Your task to perform on an android device: Open Wikipedia Image 0: 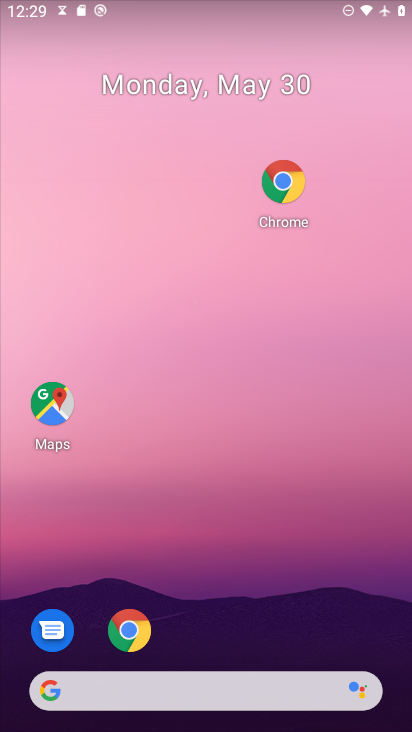
Step 0: drag from (275, 674) to (220, 288)
Your task to perform on an android device: Open Wikipedia Image 1: 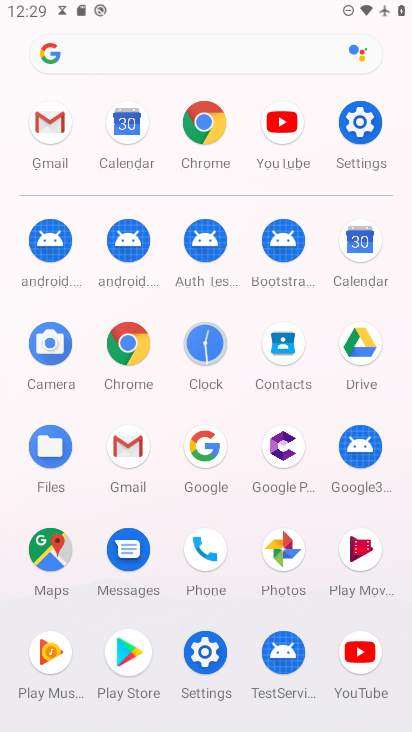
Step 1: click (203, 109)
Your task to perform on an android device: Open Wikipedia Image 2: 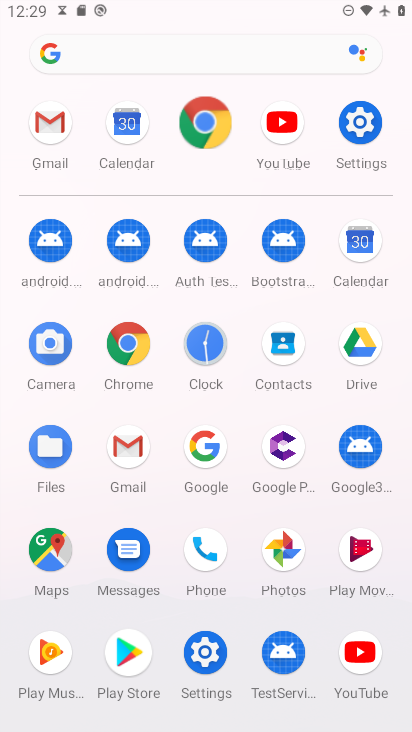
Step 2: click (204, 114)
Your task to perform on an android device: Open Wikipedia Image 3: 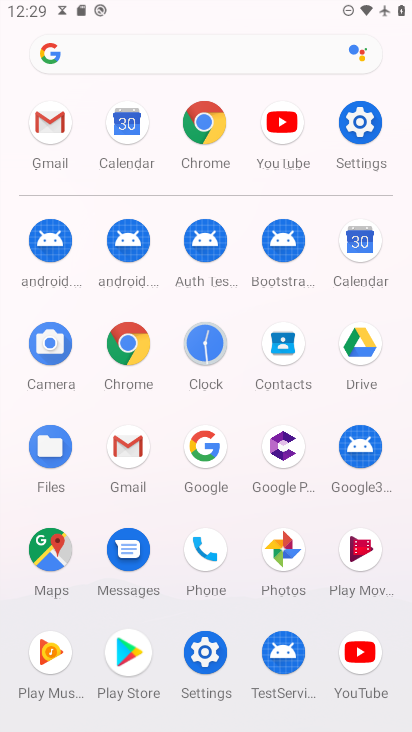
Step 3: click (205, 114)
Your task to perform on an android device: Open Wikipedia Image 4: 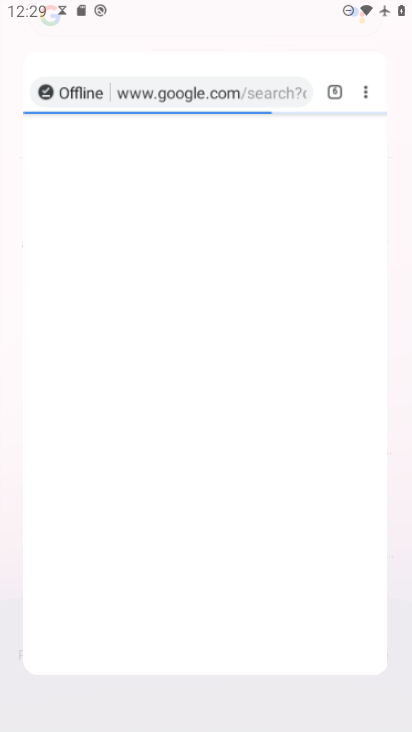
Step 4: click (205, 114)
Your task to perform on an android device: Open Wikipedia Image 5: 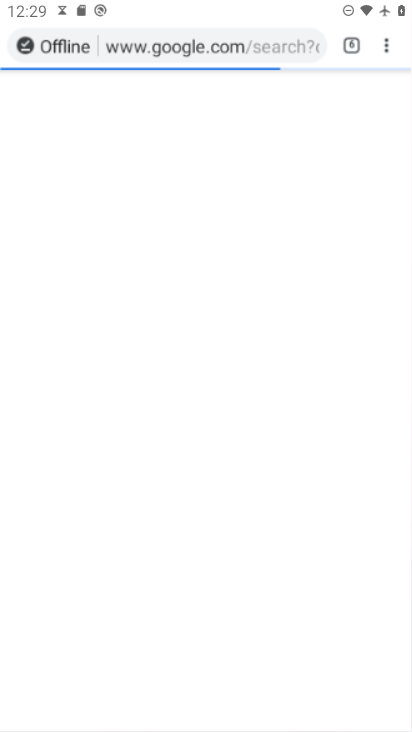
Step 5: click (205, 114)
Your task to perform on an android device: Open Wikipedia Image 6: 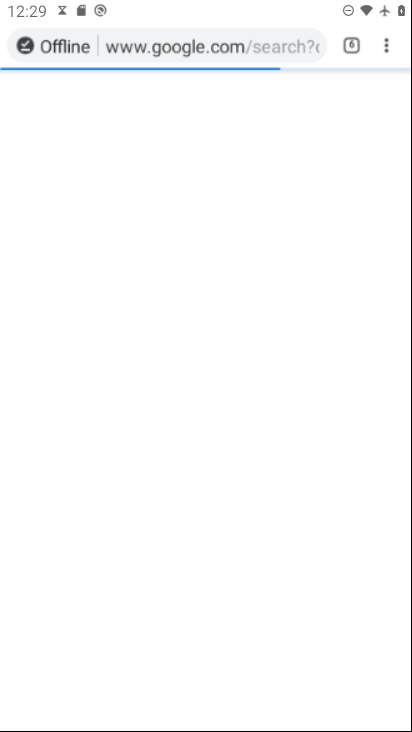
Step 6: click (206, 114)
Your task to perform on an android device: Open Wikipedia Image 7: 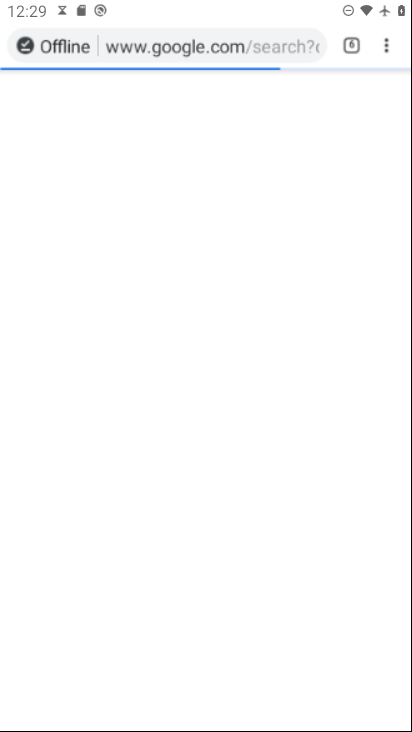
Step 7: drag from (381, 45) to (239, 96)
Your task to perform on an android device: Open Wikipedia Image 8: 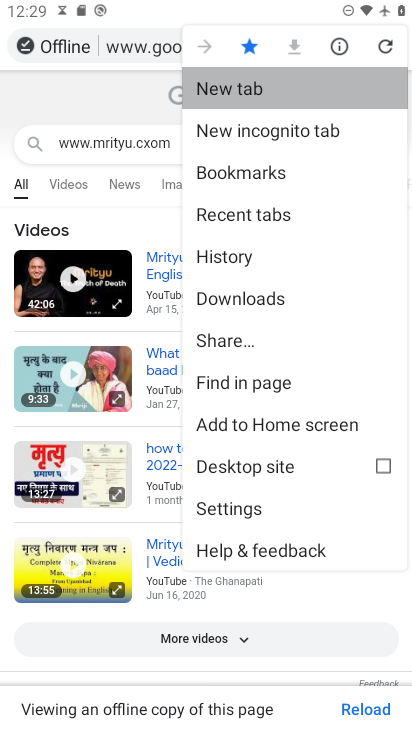
Step 8: click (241, 96)
Your task to perform on an android device: Open Wikipedia Image 9: 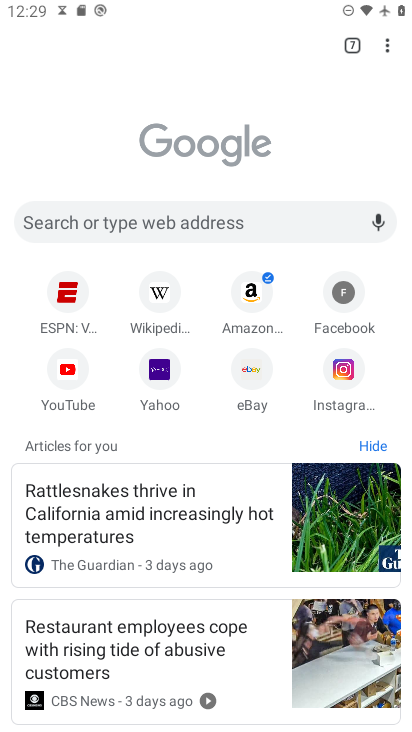
Step 9: click (151, 299)
Your task to perform on an android device: Open Wikipedia Image 10: 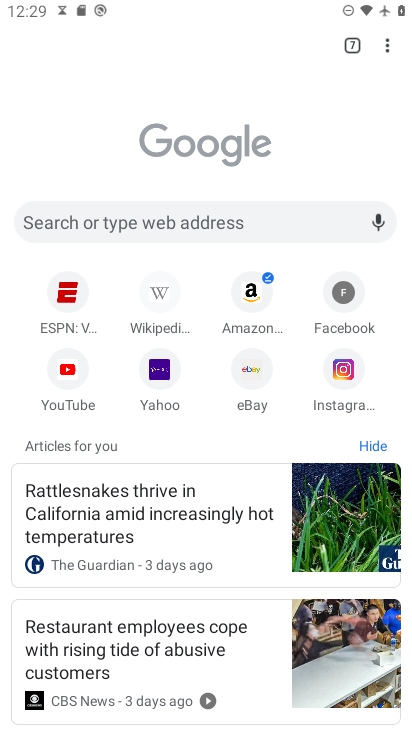
Step 10: click (152, 298)
Your task to perform on an android device: Open Wikipedia Image 11: 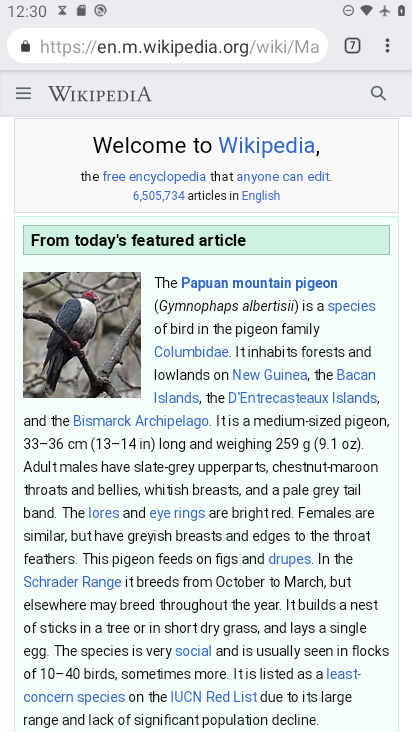
Step 11: task complete